Your task to perform on an android device: What is the recent news? Image 0: 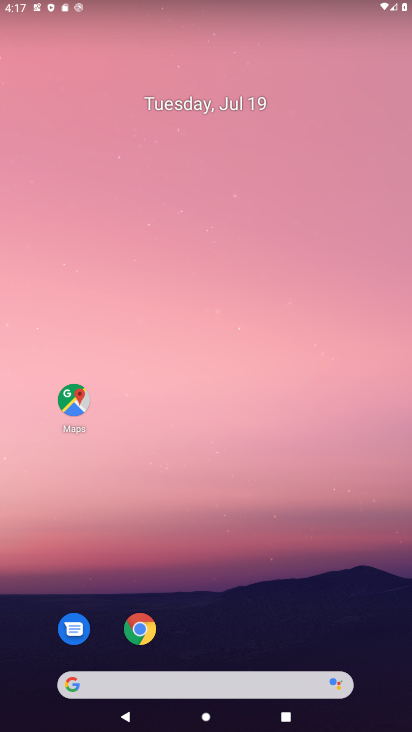
Step 0: drag from (225, 666) to (217, 274)
Your task to perform on an android device: What is the recent news? Image 1: 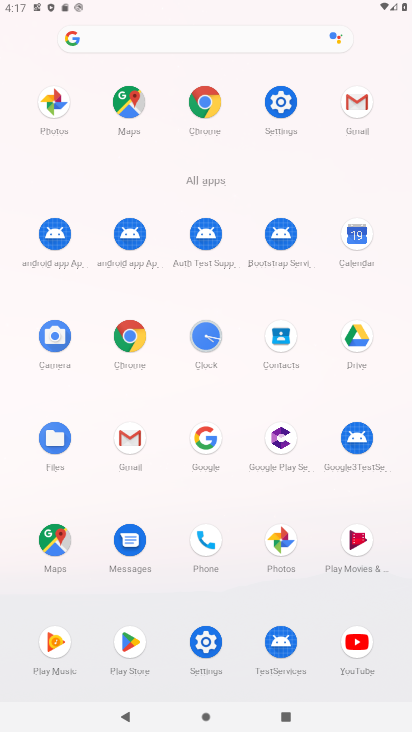
Step 1: click (187, 441)
Your task to perform on an android device: What is the recent news? Image 2: 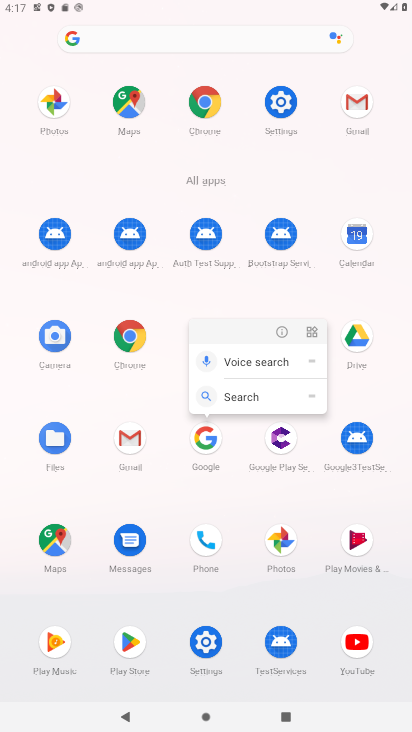
Step 2: click (197, 442)
Your task to perform on an android device: What is the recent news? Image 3: 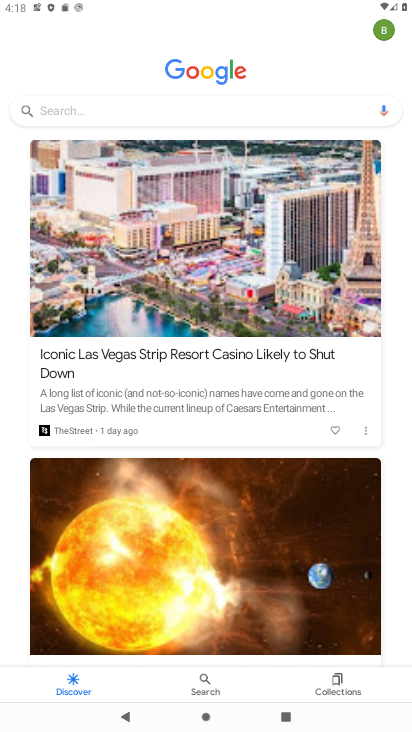
Step 3: click (90, 106)
Your task to perform on an android device: What is the recent news? Image 4: 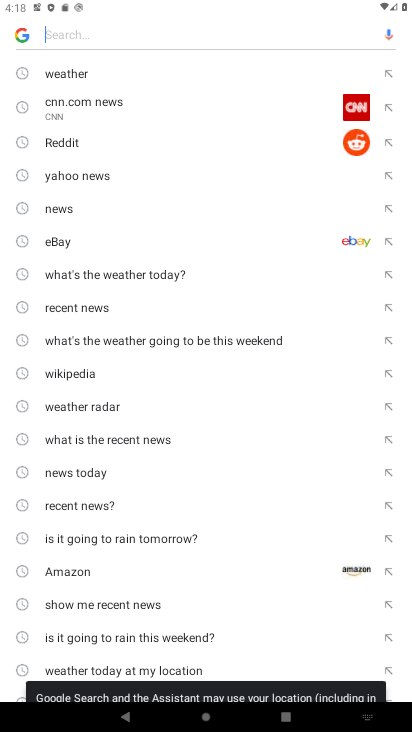
Step 4: click (90, 311)
Your task to perform on an android device: What is the recent news? Image 5: 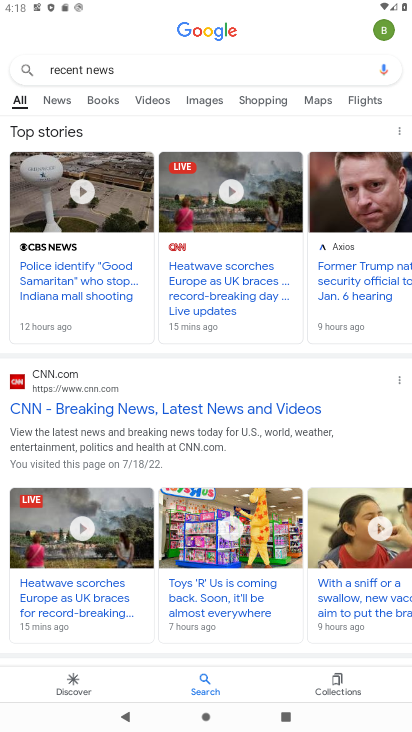
Step 5: task complete